Your task to perform on an android device: change timer sound Image 0: 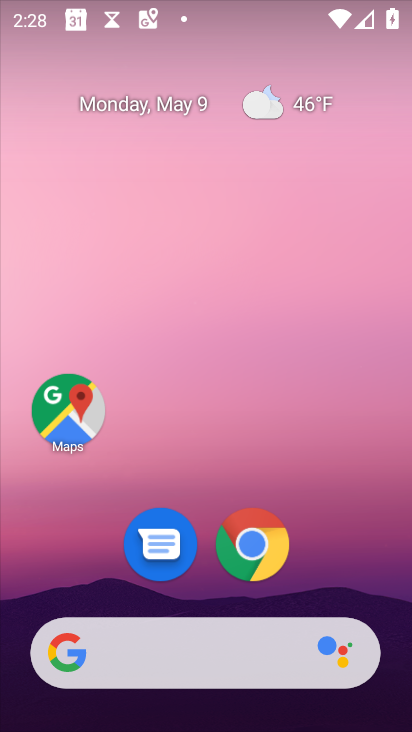
Step 0: drag from (322, 568) to (191, 254)
Your task to perform on an android device: change timer sound Image 1: 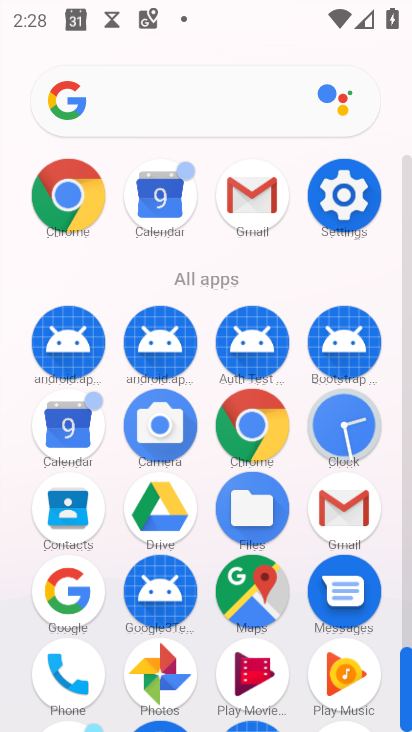
Step 1: click (372, 408)
Your task to perform on an android device: change timer sound Image 2: 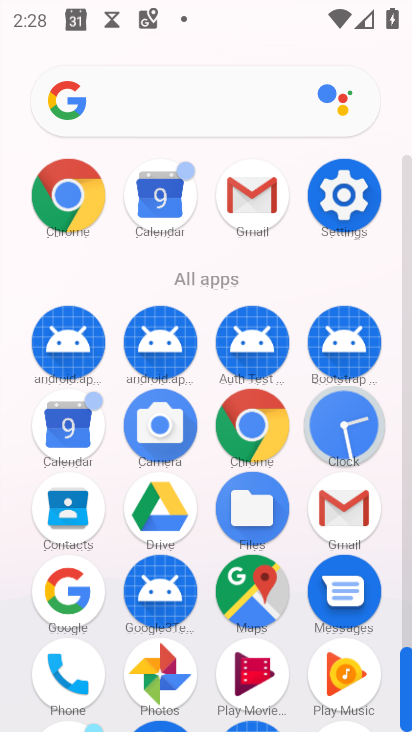
Step 2: click (372, 408)
Your task to perform on an android device: change timer sound Image 3: 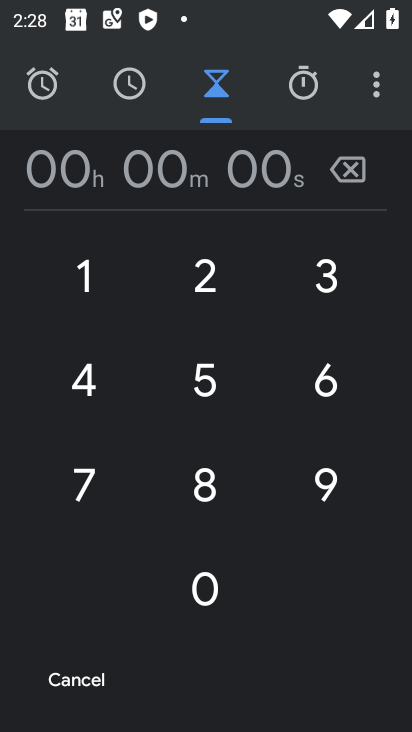
Step 3: click (385, 101)
Your task to perform on an android device: change timer sound Image 4: 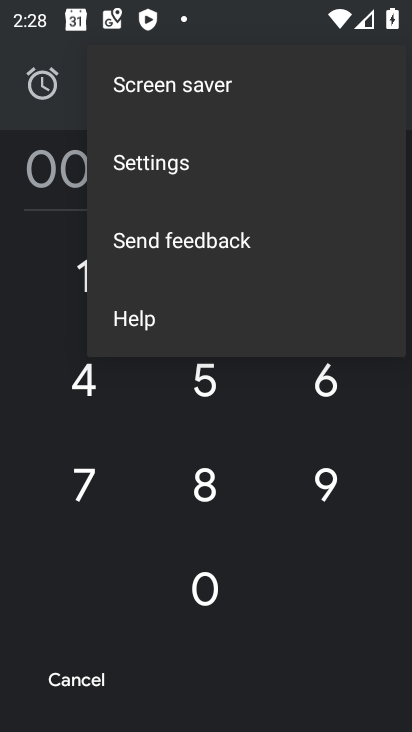
Step 4: click (155, 162)
Your task to perform on an android device: change timer sound Image 5: 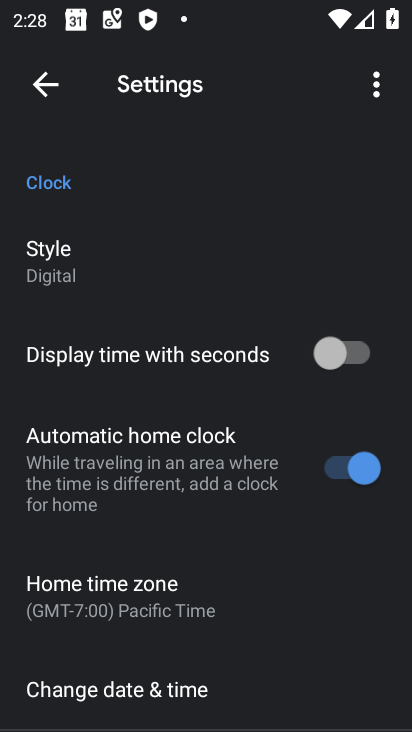
Step 5: drag from (160, 568) to (160, 186)
Your task to perform on an android device: change timer sound Image 6: 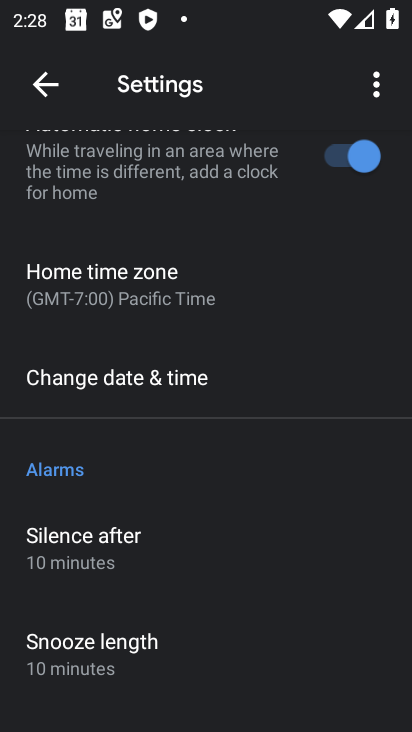
Step 6: drag from (146, 603) to (158, 239)
Your task to perform on an android device: change timer sound Image 7: 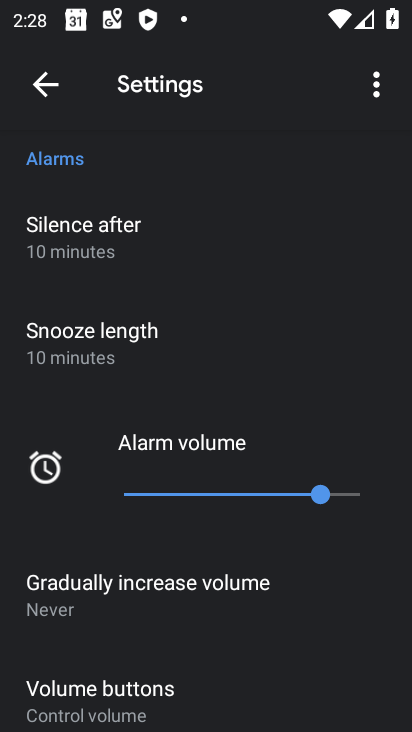
Step 7: drag from (146, 643) to (161, 259)
Your task to perform on an android device: change timer sound Image 8: 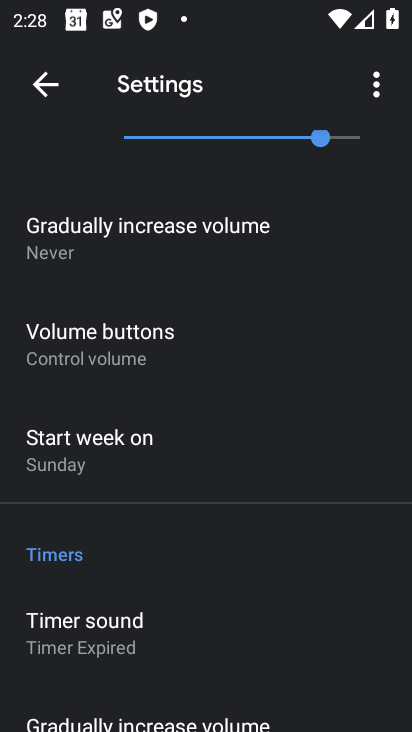
Step 8: click (132, 630)
Your task to perform on an android device: change timer sound Image 9: 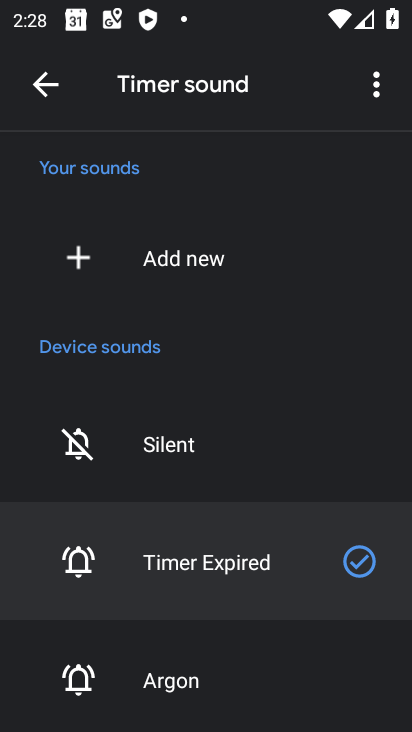
Step 9: drag from (159, 650) to (188, 307)
Your task to perform on an android device: change timer sound Image 10: 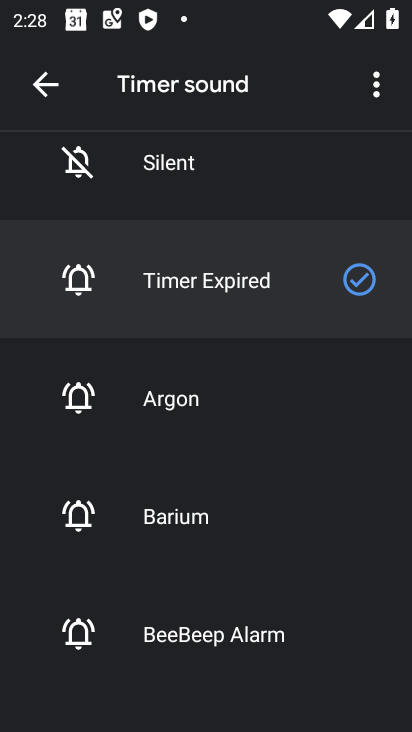
Step 10: click (168, 638)
Your task to perform on an android device: change timer sound Image 11: 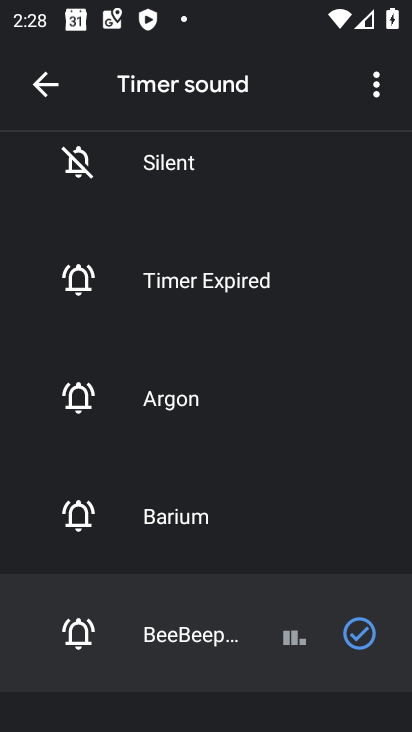
Step 11: task complete